Your task to perform on an android device: Do I have any events this weekend? Image 0: 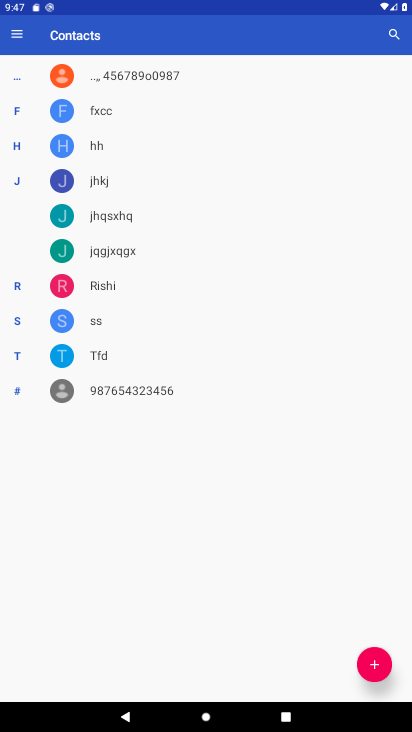
Step 0: press home button
Your task to perform on an android device: Do I have any events this weekend? Image 1: 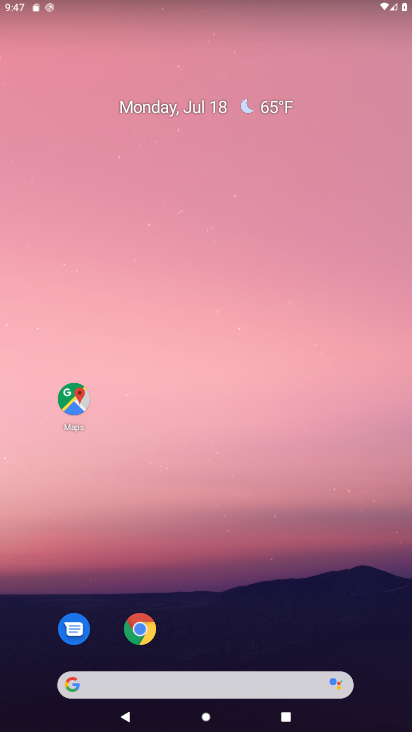
Step 1: drag from (230, 581) to (230, 202)
Your task to perform on an android device: Do I have any events this weekend? Image 2: 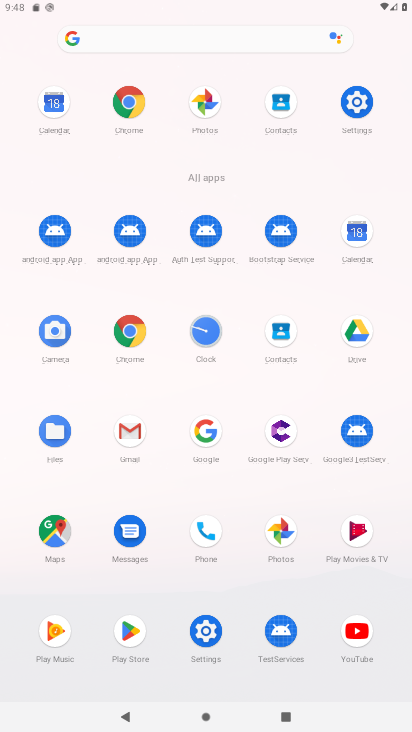
Step 2: click (354, 232)
Your task to perform on an android device: Do I have any events this weekend? Image 3: 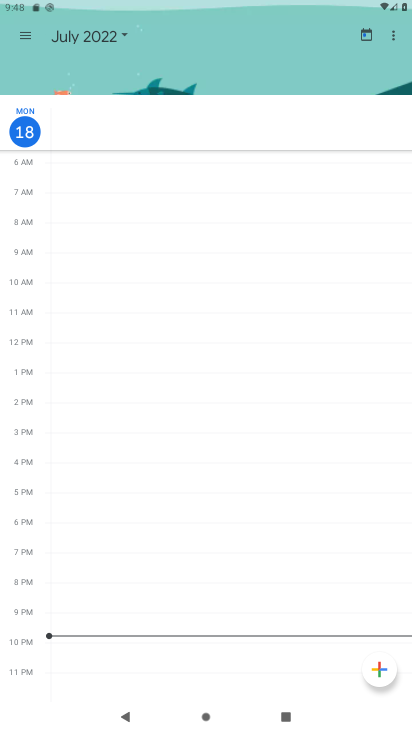
Step 3: click (23, 34)
Your task to perform on an android device: Do I have any events this weekend? Image 4: 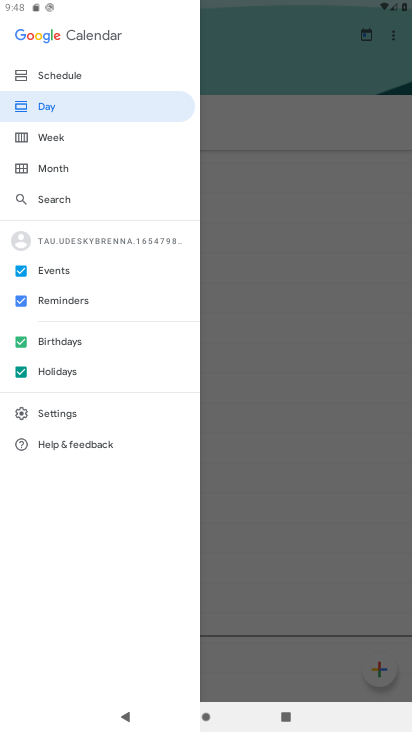
Step 4: click (53, 133)
Your task to perform on an android device: Do I have any events this weekend? Image 5: 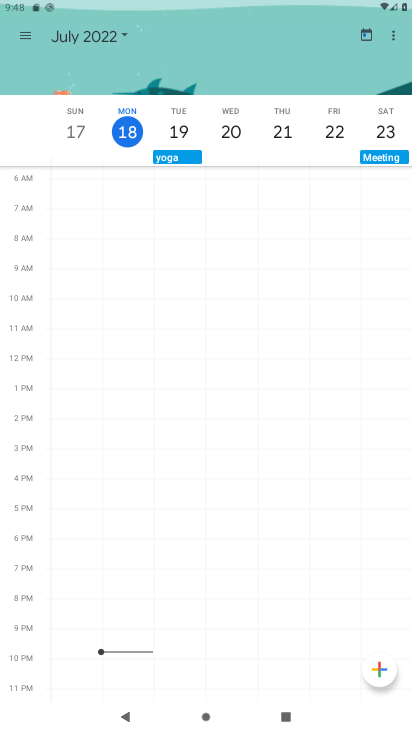
Step 5: task complete